Your task to perform on an android device: toggle javascript in the chrome app Image 0: 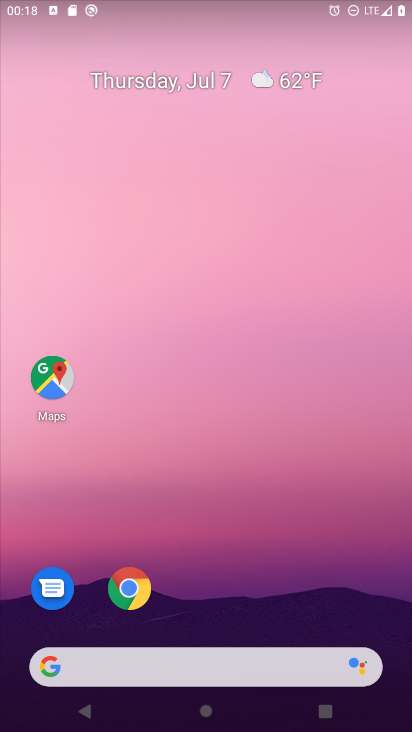
Step 0: click (128, 590)
Your task to perform on an android device: toggle javascript in the chrome app Image 1: 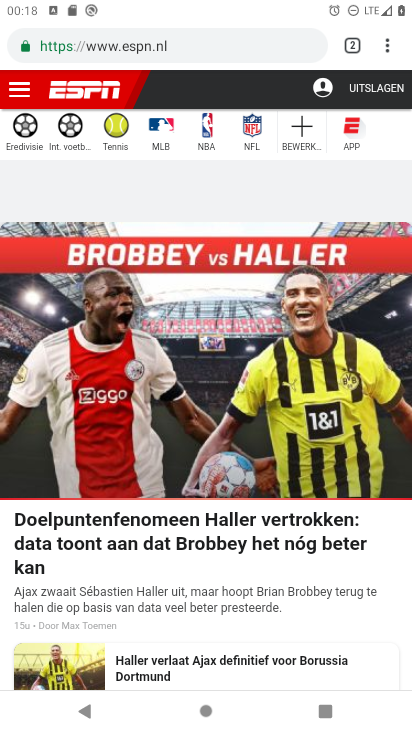
Step 1: click (387, 50)
Your task to perform on an android device: toggle javascript in the chrome app Image 2: 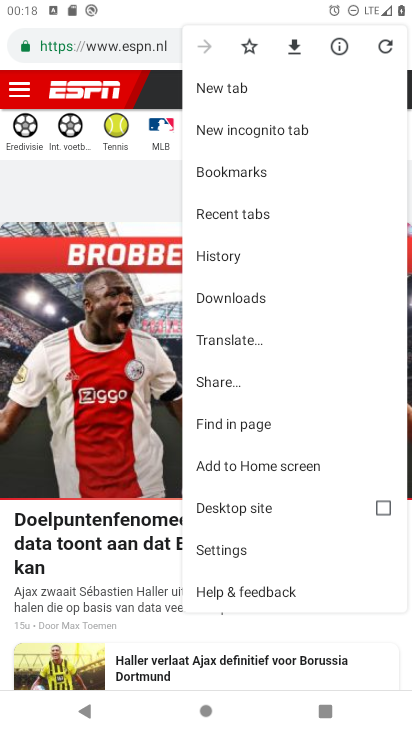
Step 2: click (220, 551)
Your task to perform on an android device: toggle javascript in the chrome app Image 3: 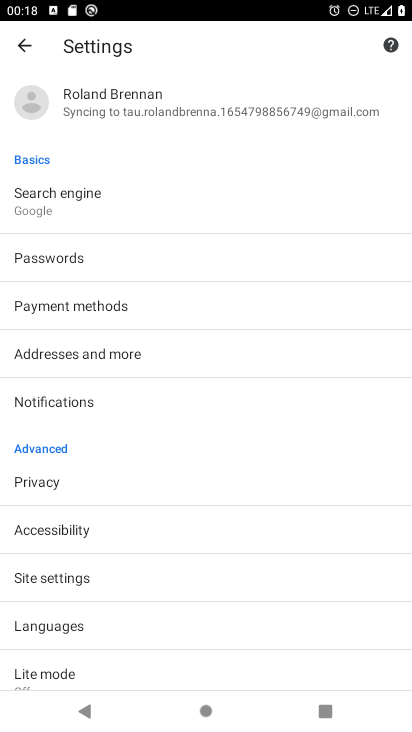
Step 3: click (47, 570)
Your task to perform on an android device: toggle javascript in the chrome app Image 4: 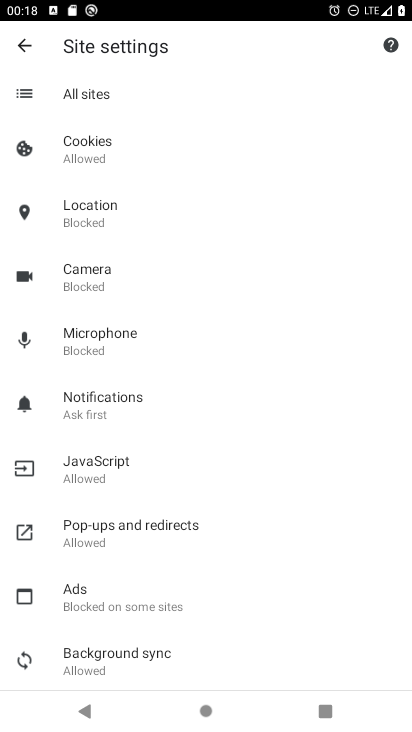
Step 4: click (93, 462)
Your task to perform on an android device: toggle javascript in the chrome app Image 5: 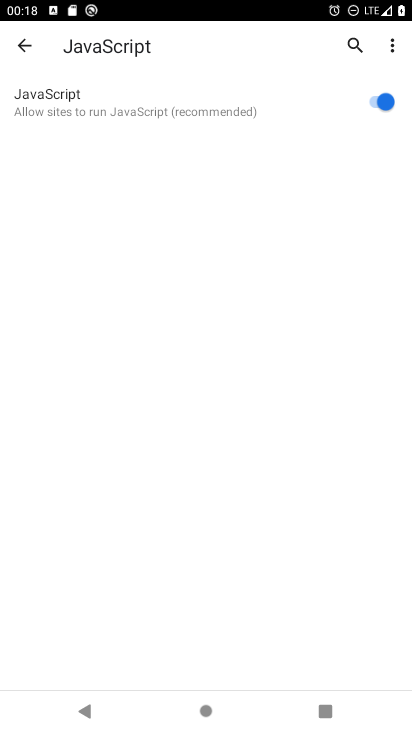
Step 5: click (370, 99)
Your task to perform on an android device: toggle javascript in the chrome app Image 6: 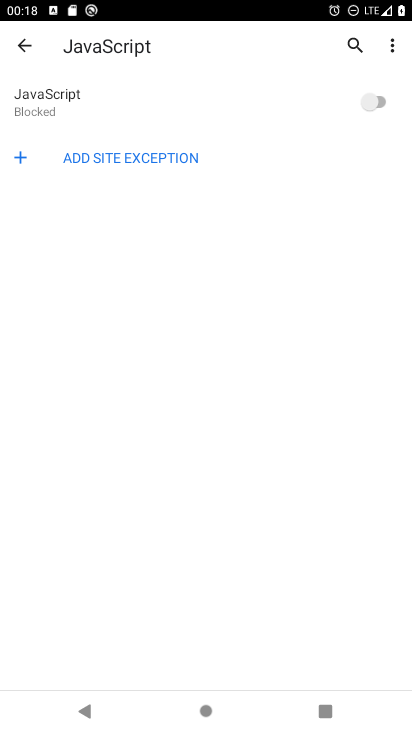
Step 6: task complete